Your task to perform on an android device: empty trash in the gmail app Image 0: 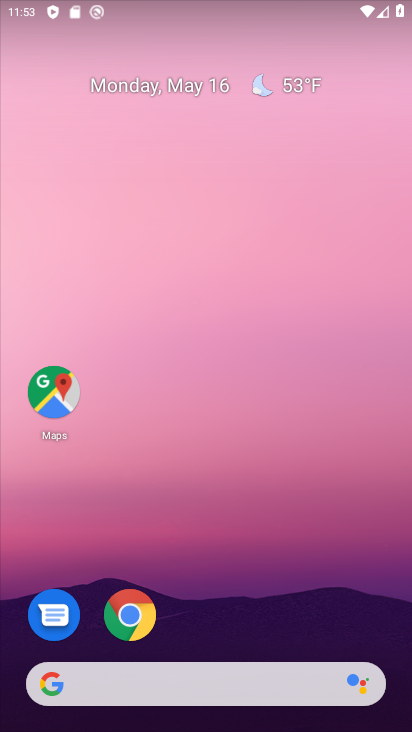
Step 0: drag from (246, 619) to (169, 54)
Your task to perform on an android device: empty trash in the gmail app Image 1: 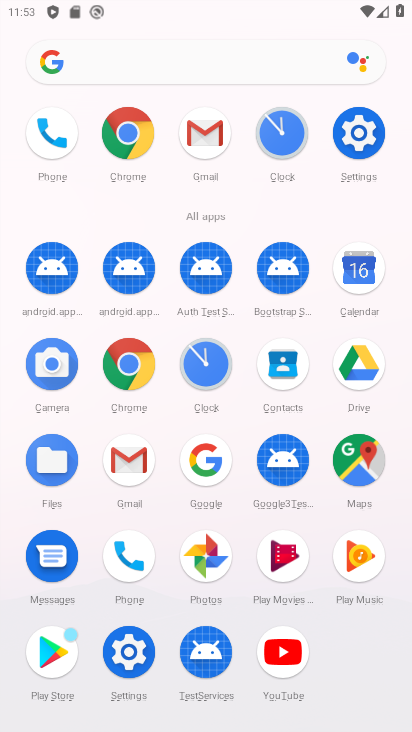
Step 1: click (201, 163)
Your task to perform on an android device: empty trash in the gmail app Image 2: 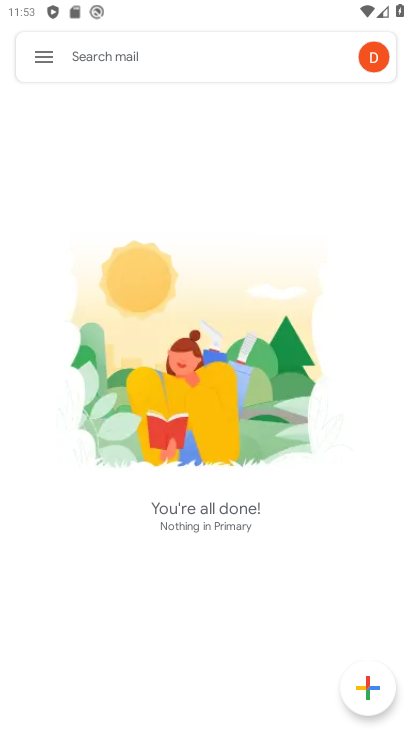
Step 2: click (46, 64)
Your task to perform on an android device: empty trash in the gmail app Image 3: 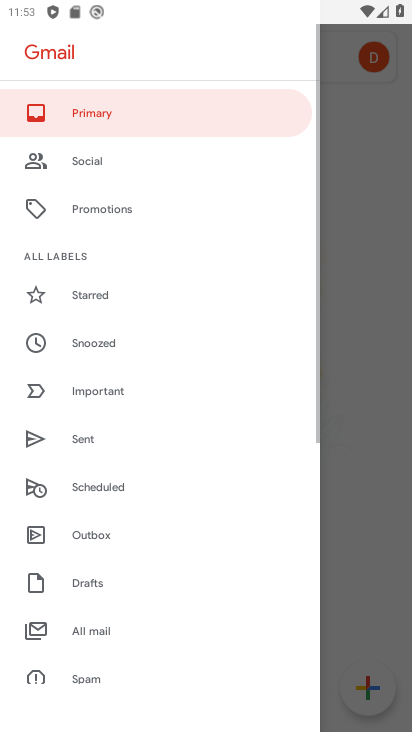
Step 3: drag from (143, 638) to (182, 337)
Your task to perform on an android device: empty trash in the gmail app Image 4: 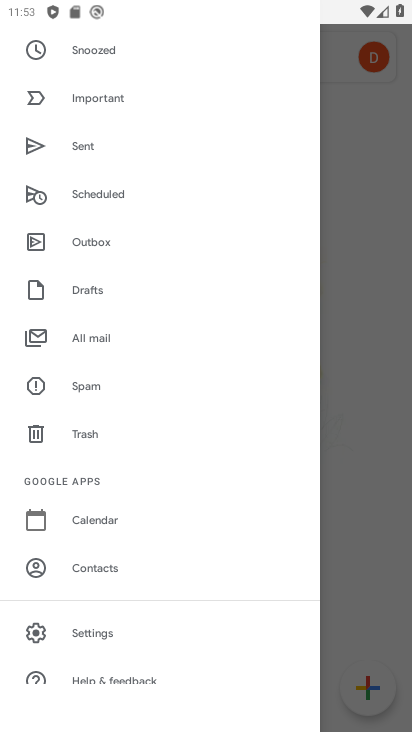
Step 4: click (149, 420)
Your task to perform on an android device: empty trash in the gmail app Image 5: 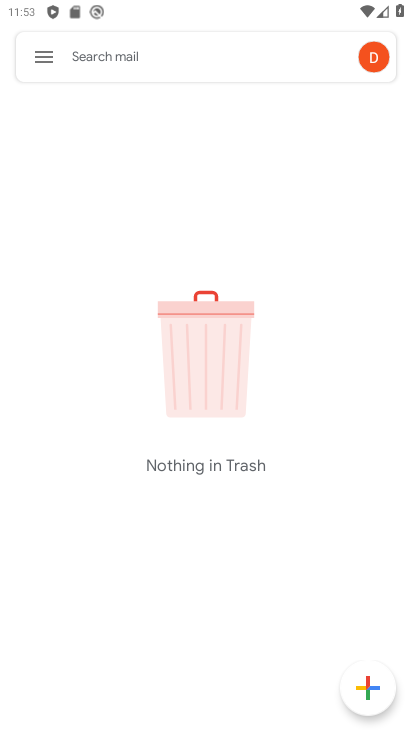
Step 5: task complete